Your task to perform on an android device: open chrome privacy settings Image 0: 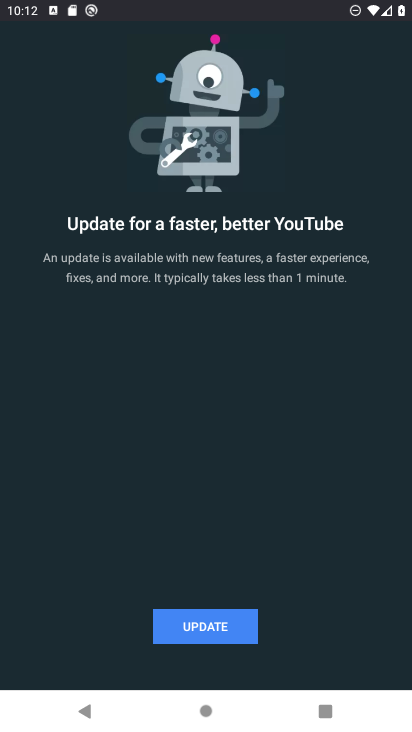
Step 0: press home button
Your task to perform on an android device: open chrome privacy settings Image 1: 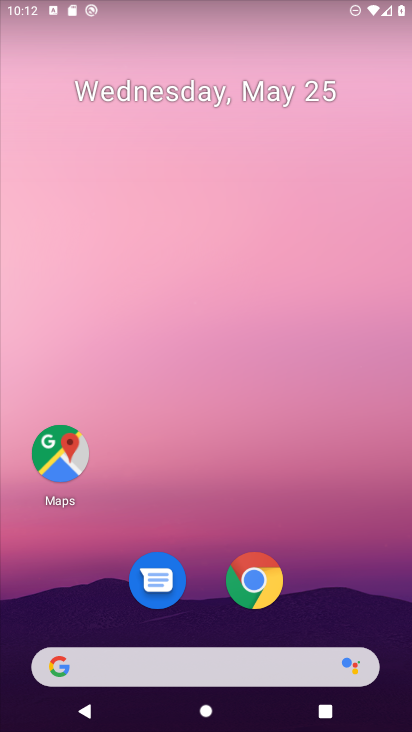
Step 1: click (253, 577)
Your task to perform on an android device: open chrome privacy settings Image 2: 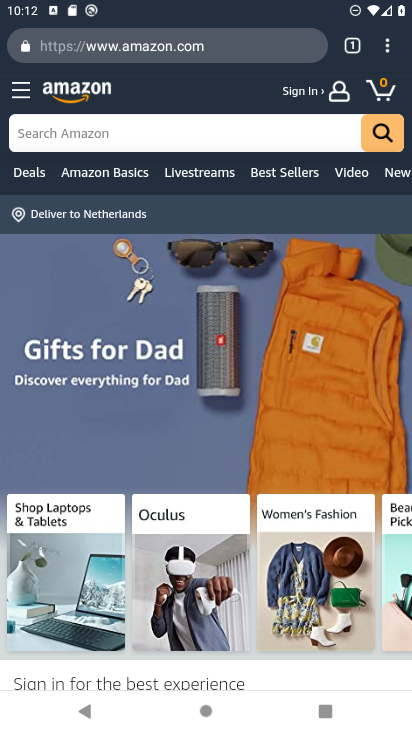
Step 2: click (386, 46)
Your task to perform on an android device: open chrome privacy settings Image 3: 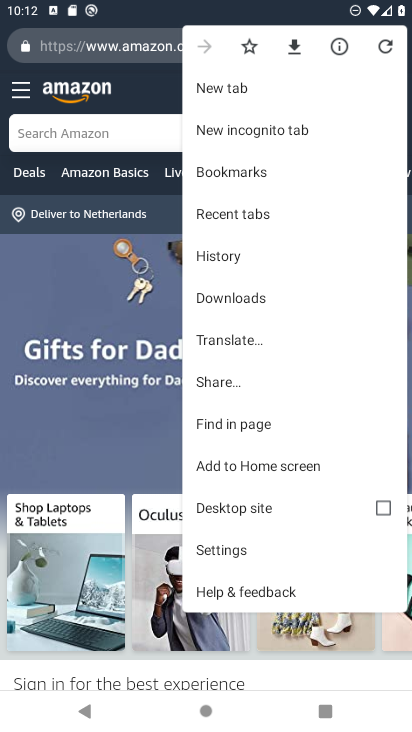
Step 3: click (208, 548)
Your task to perform on an android device: open chrome privacy settings Image 4: 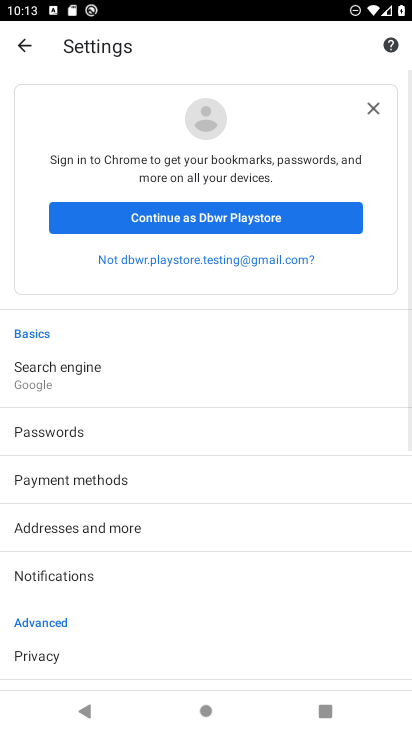
Step 4: drag from (21, 510) to (131, 202)
Your task to perform on an android device: open chrome privacy settings Image 5: 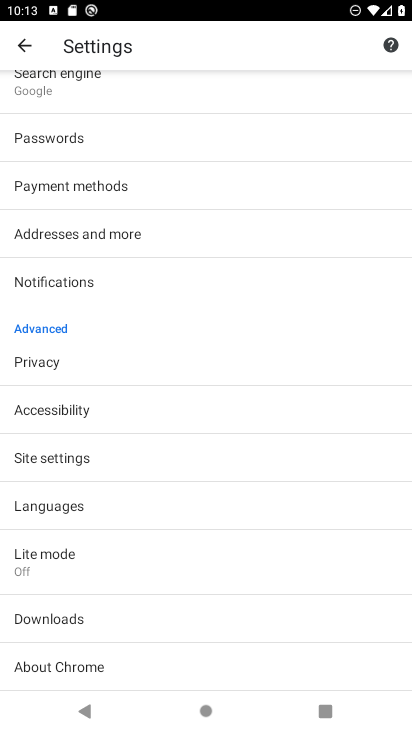
Step 5: click (65, 353)
Your task to perform on an android device: open chrome privacy settings Image 6: 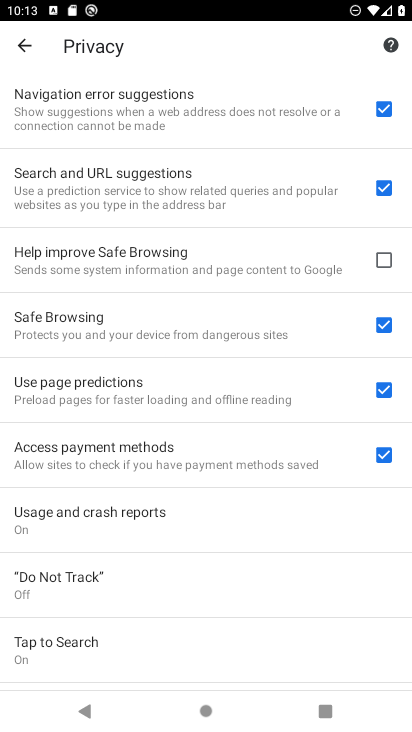
Step 6: task complete